Your task to perform on an android device: find which apps use the phone's location Image 0: 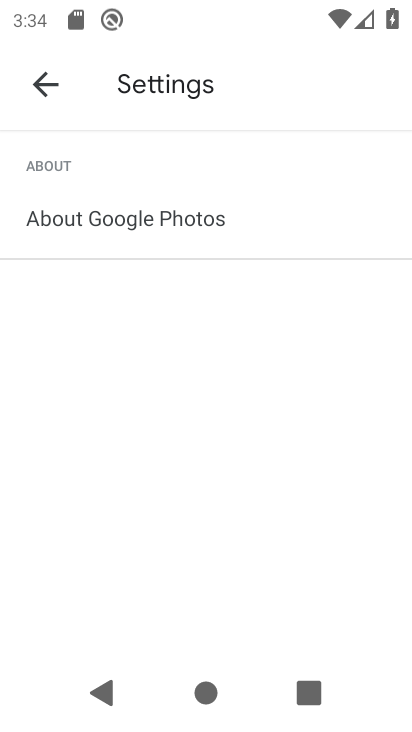
Step 0: press home button
Your task to perform on an android device: find which apps use the phone's location Image 1: 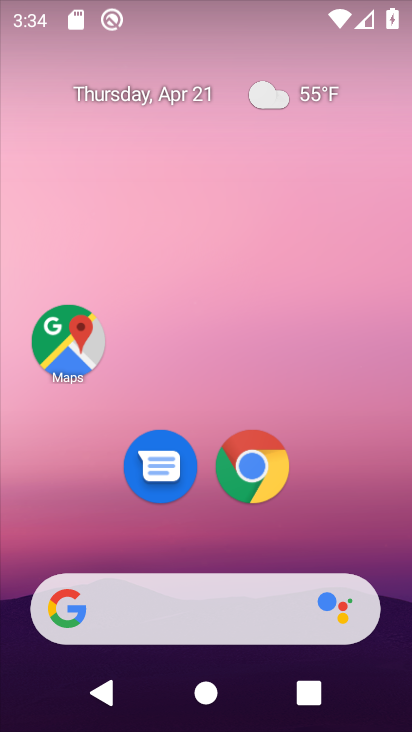
Step 1: drag from (305, 488) to (333, 99)
Your task to perform on an android device: find which apps use the phone's location Image 2: 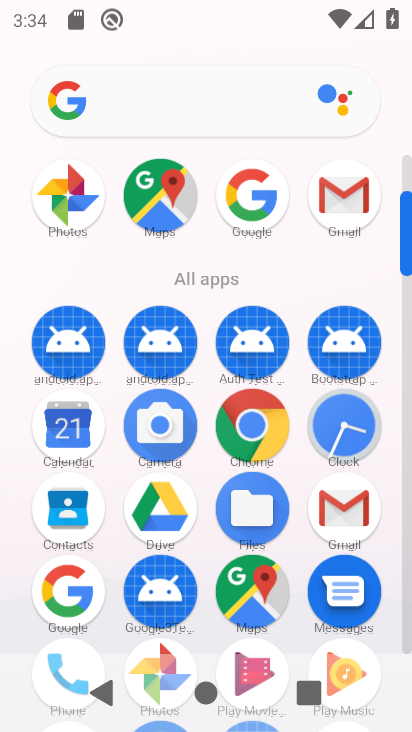
Step 2: drag from (188, 497) to (235, 110)
Your task to perform on an android device: find which apps use the phone's location Image 3: 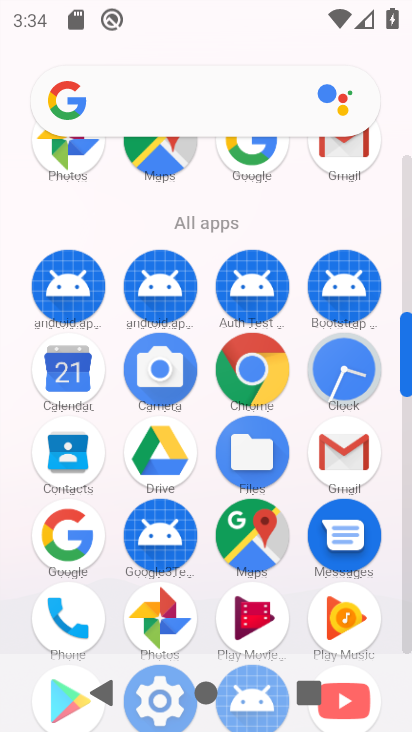
Step 3: drag from (223, 539) to (297, 144)
Your task to perform on an android device: find which apps use the phone's location Image 4: 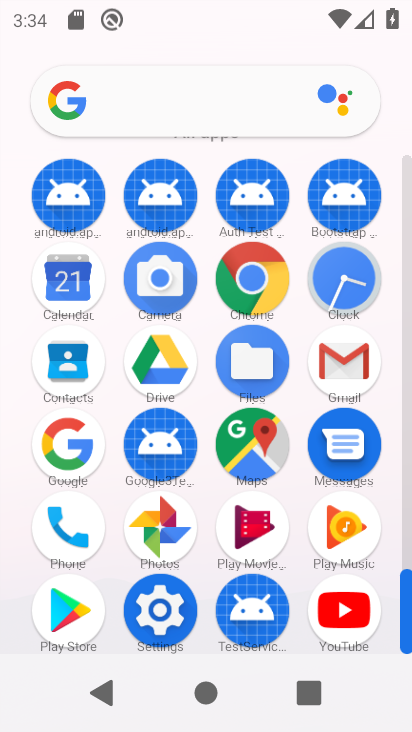
Step 4: click (170, 619)
Your task to perform on an android device: find which apps use the phone's location Image 5: 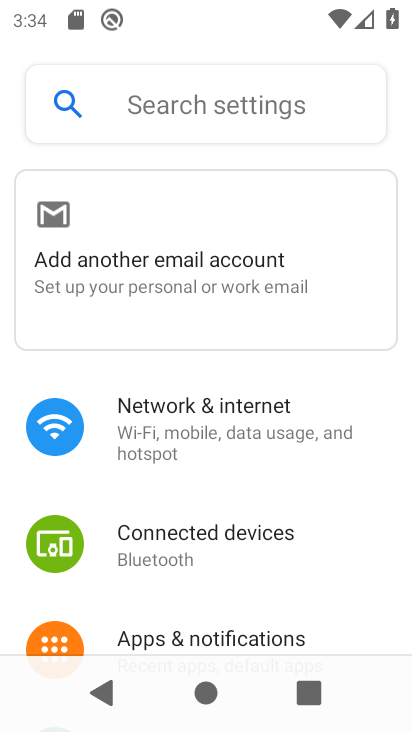
Step 5: drag from (271, 507) to (308, 110)
Your task to perform on an android device: find which apps use the phone's location Image 6: 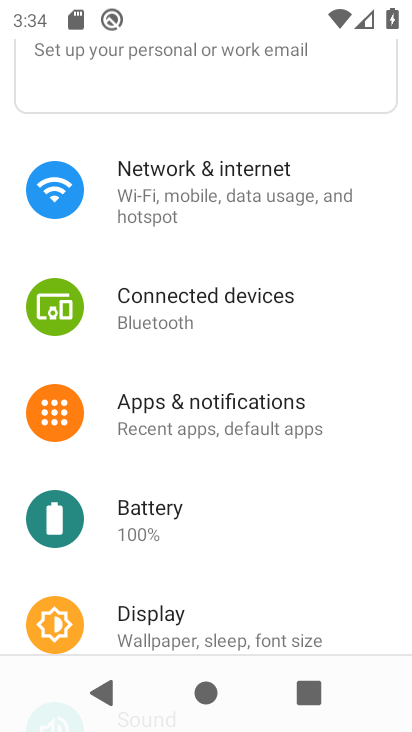
Step 6: drag from (210, 510) to (253, 127)
Your task to perform on an android device: find which apps use the phone's location Image 7: 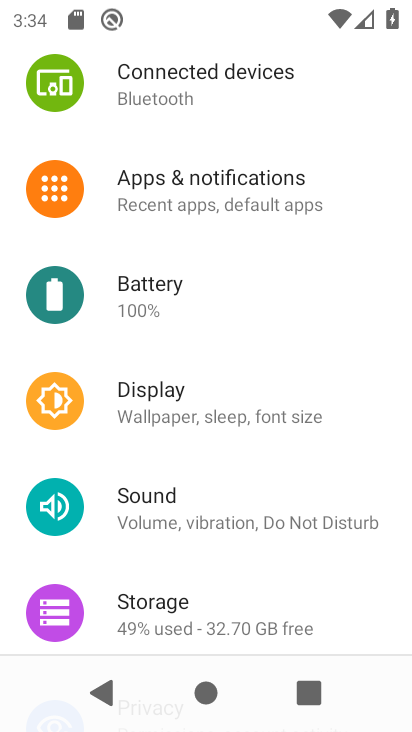
Step 7: drag from (229, 472) to (255, 135)
Your task to perform on an android device: find which apps use the phone's location Image 8: 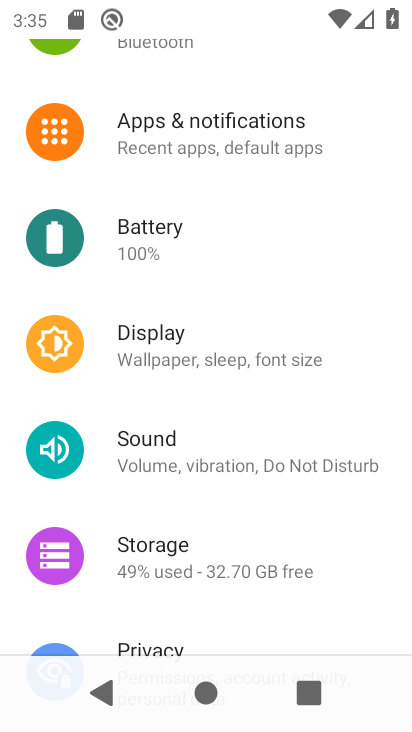
Step 8: drag from (230, 477) to (257, 104)
Your task to perform on an android device: find which apps use the phone's location Image 9: 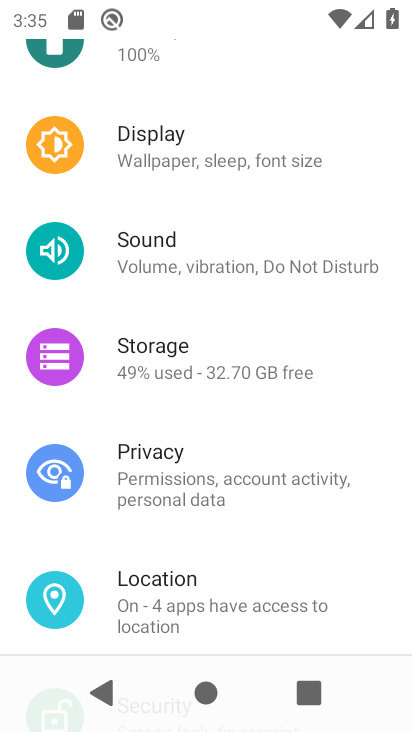
Step 9: click (207, 606)
Your task to perform on an android device: find which apps use the phone's location Image 10: 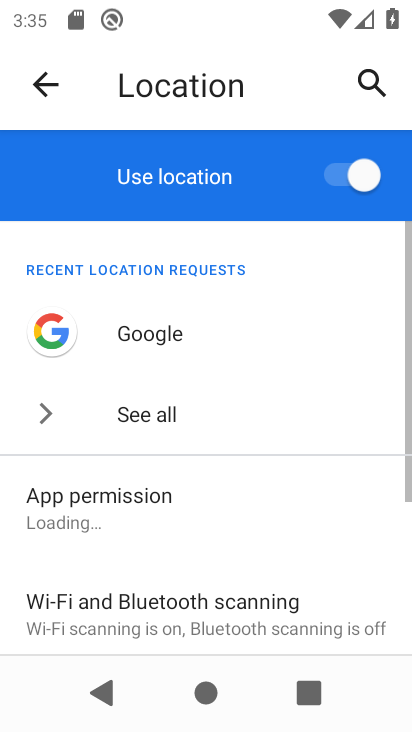
Step 10: task complete